Your task to perform on an android device: check storage Image 0: 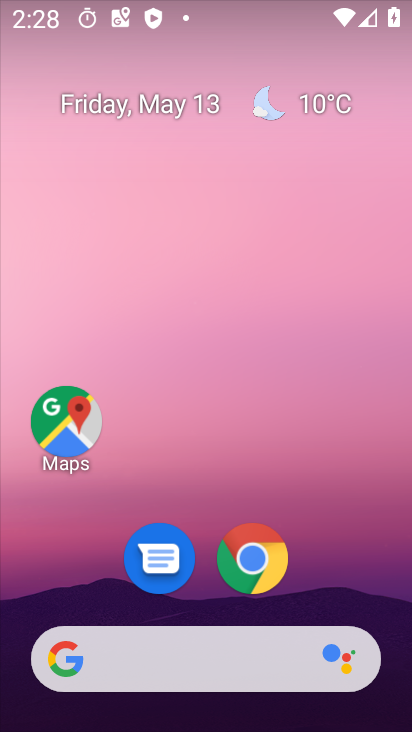
Step 0: drag from (217, 601) to (195, 225)
Your task to perform on an android device: check storage Image 1: 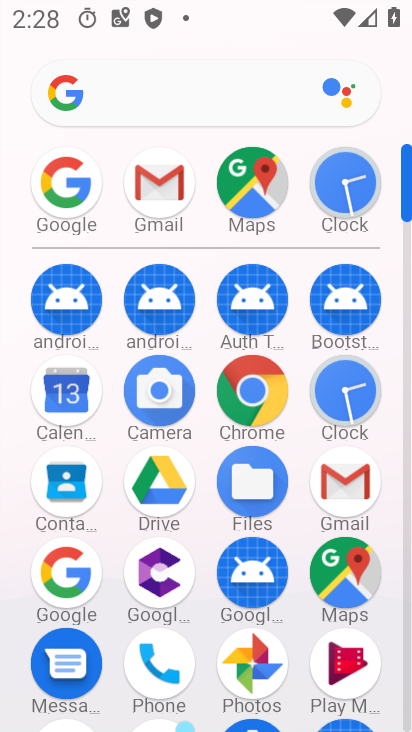
Step 1: drag from (297, 514) to (318, 185)
Your task to perform on an android device: check storage Image 2: 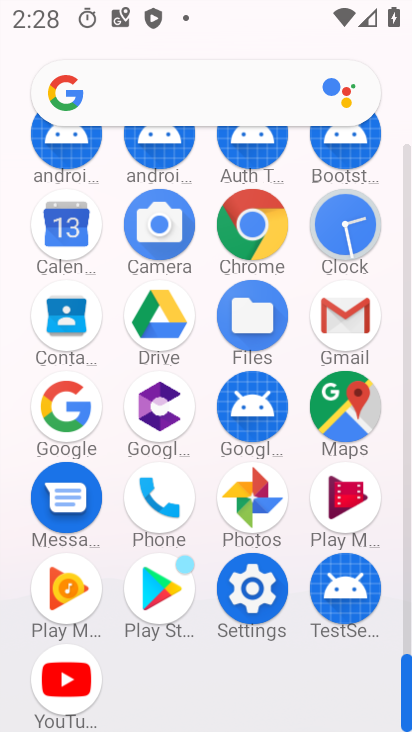
Step 2: click (253, 584)
Your task to perform on an android device: check storage Image 3: 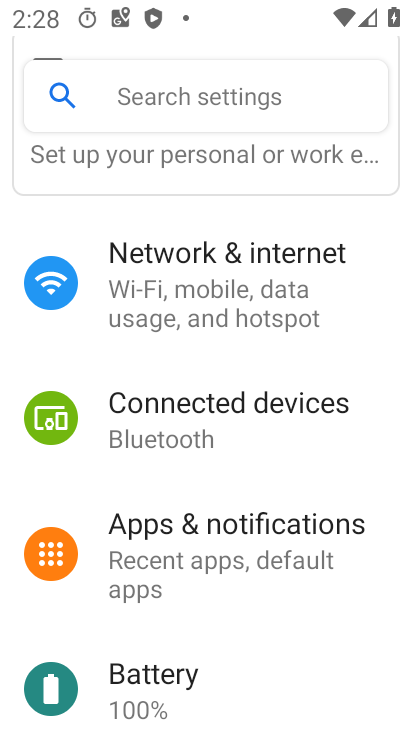
Step 3: drag from (240, 660) to (235, 341)
Your task to perform on an android device: check storage Image 4: 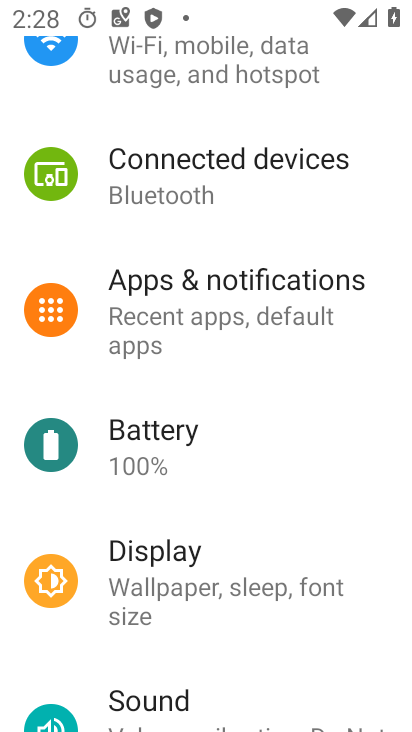
Step 4: drag from (227, 585) to (226, 355)
Your task to perform on an android device: check storage Image 5: 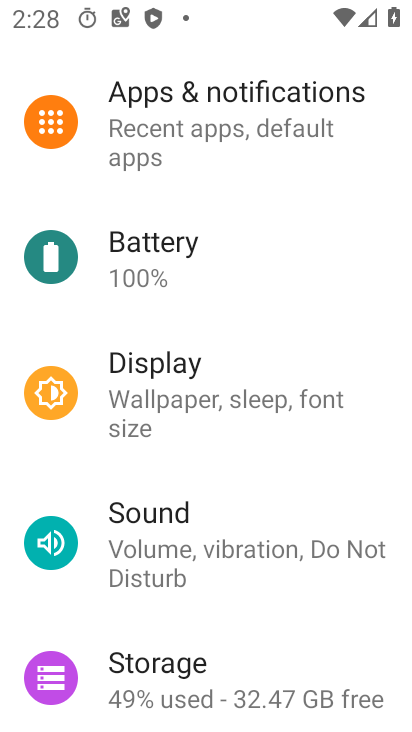
Step 5: click (176, 687)
Your task to perform on an android device: check storage Image 6: 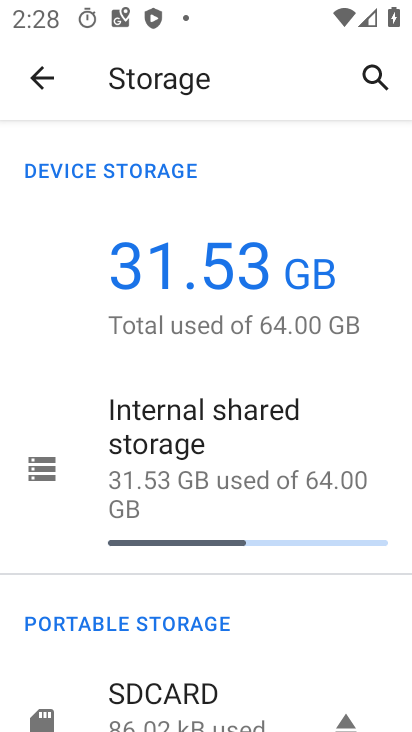
Step 6: task complete